Your task to perform on an android device: snooze an email in the gmail app Image 0: 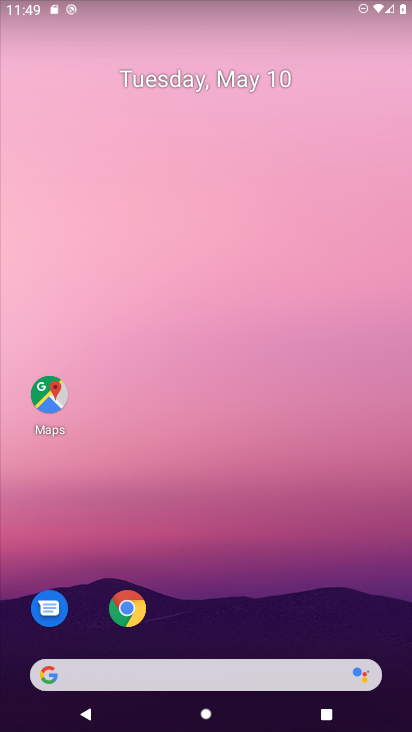
Step 0: drag from (227, 476) to (234, 28)
Your task to perform on an android device: snooze an email in the gmail app Image 1: 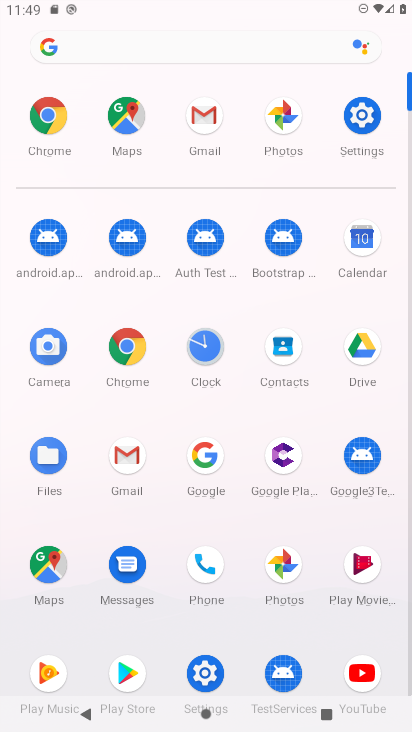
Step 1: click (208, 116)
Your task to perform on an android device: snooze an email in the gmail app Image 2: 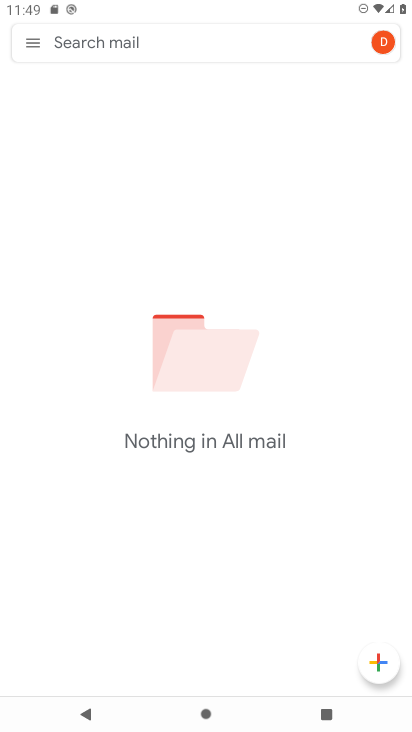
Step 2: task complete